Your task to perform on an android device: change notification settings in the gmail app Image 0: 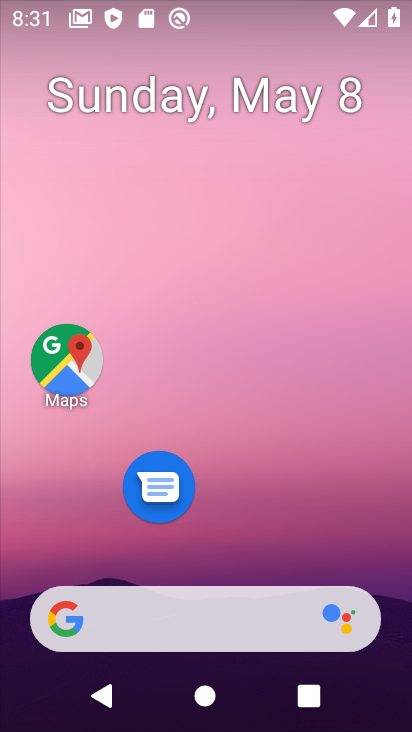
Step 0: drag from (307, 433) to (361, 128)
Your task to perform on an android device: change notification settings in the gmail app Image 1: 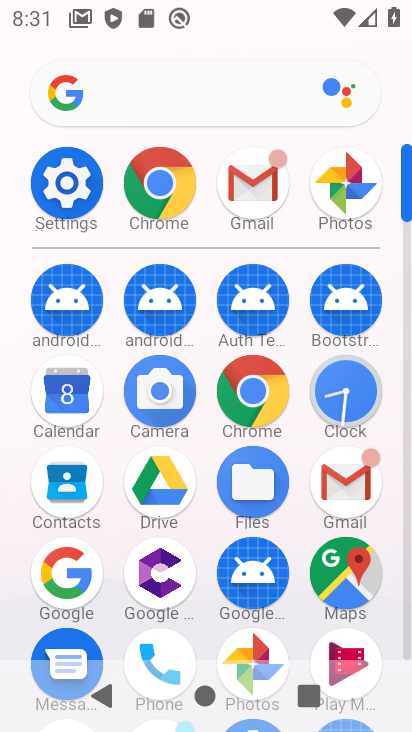
Step 1: click (255, 213)
Your task to perform on an android device: change notification settings in the gmail app Image 2: 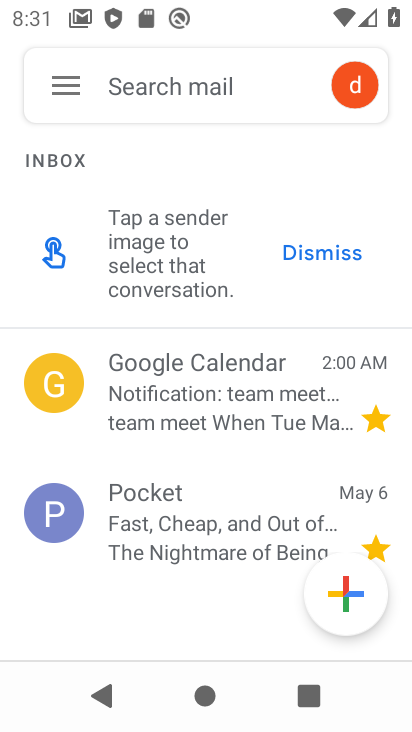
Step 2: click (77, 88)
Your task to perform on an android device: change notification settings in the gmail app Image 3: 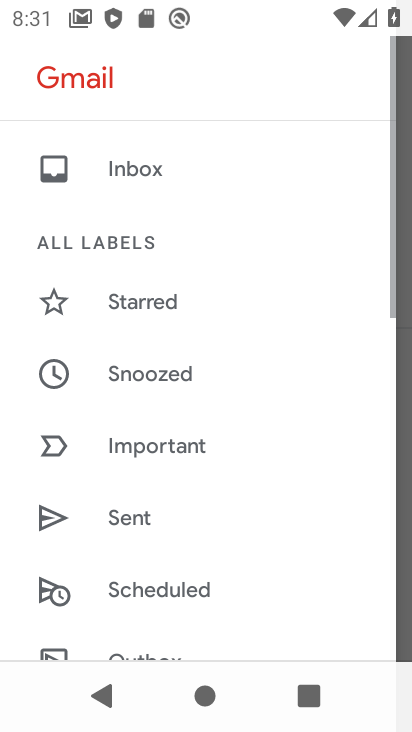
Step 3: drag from (154, 607) to (204, 218)
Your task to perform on an android device: change notification settings in the gmail app Image 4: 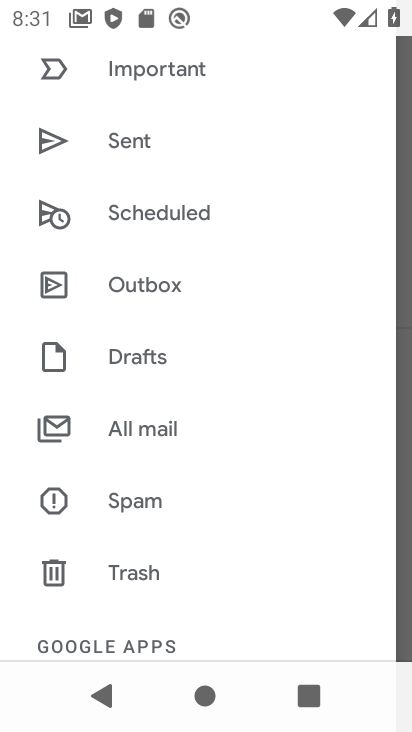
Step 4: drag from (152, 470) to (167, 255)
Your task to perform on an android device: change notification settings in the gmail app Image 5: 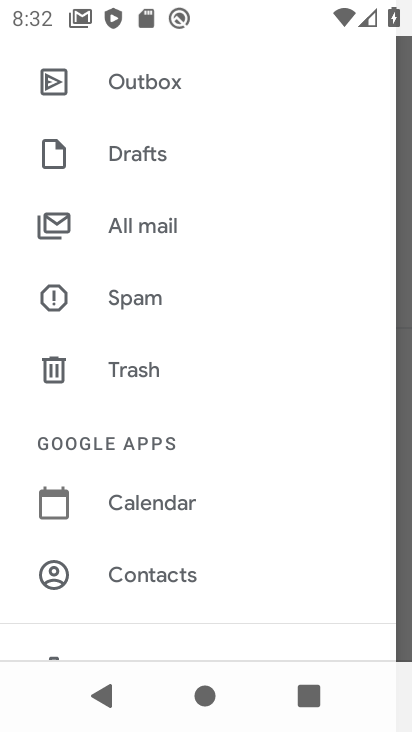
Step 5: drag from (148, 606) to (189, 181)
Your task to perform on an android device: change notification settings in the gmail app Image 6: 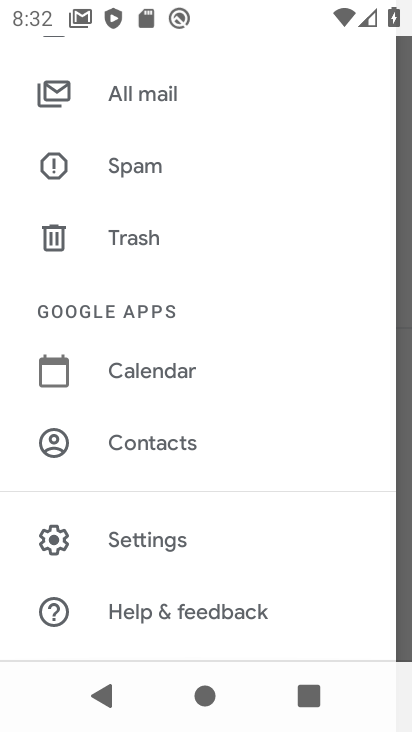
Step 6: click (180, 565)
Your task to perform on an android device: change notification settings in the gmail app Image 7: 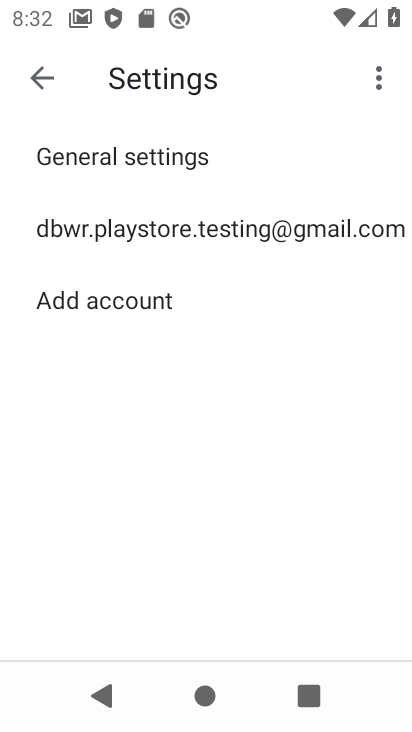
Step 7: click (133, 172)
Your task to perform on an android device: change notification settings in the gmail app Image 8: 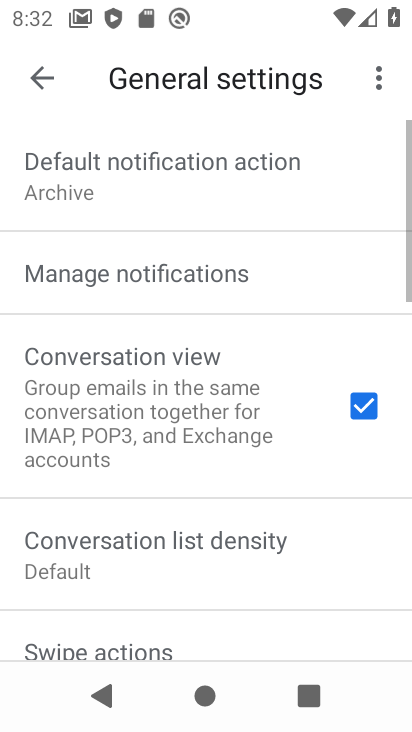
Step 8: click (209, 295)
Your task to perform on an android device: change notification settings in the gmail app Image 9: 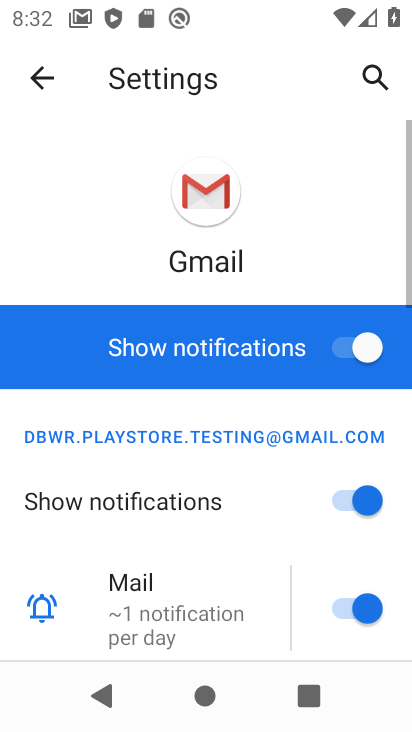
Step 9: task complete